Your task to perform on an android device: Open the map Image 0: 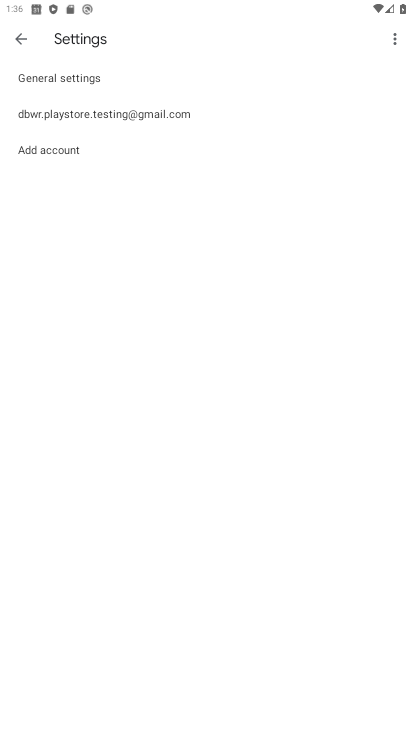
Step 0: click (24, 34)
Your task to perform on an android device: Open the map Image 1: 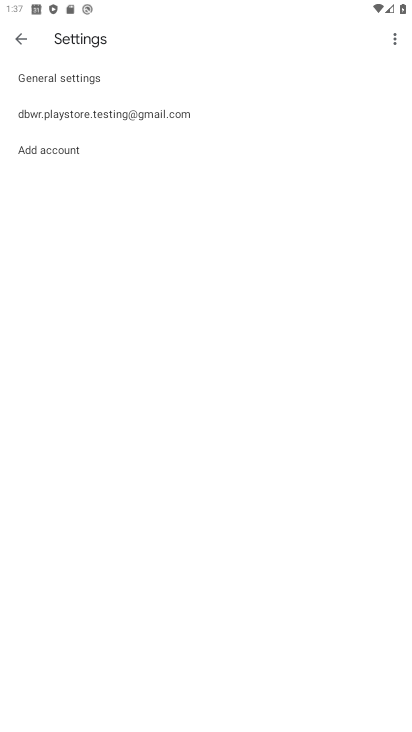
Step 1: click (12, 37)
Your task to perform on an android device: Open the map Image 2: 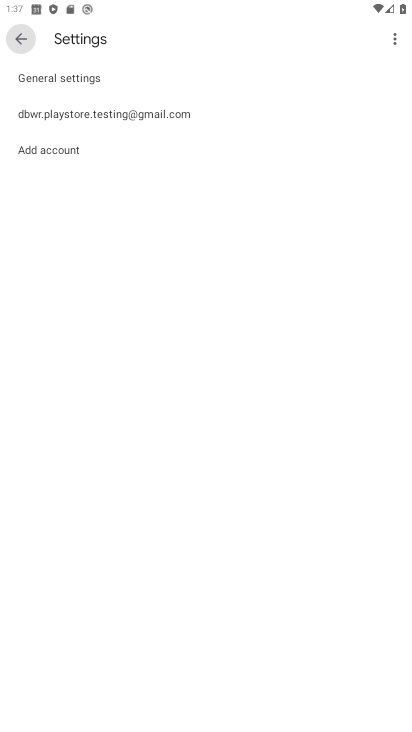
Step 2: click (12, 37)
Your task to perform on an android device: Open the map Image 3: 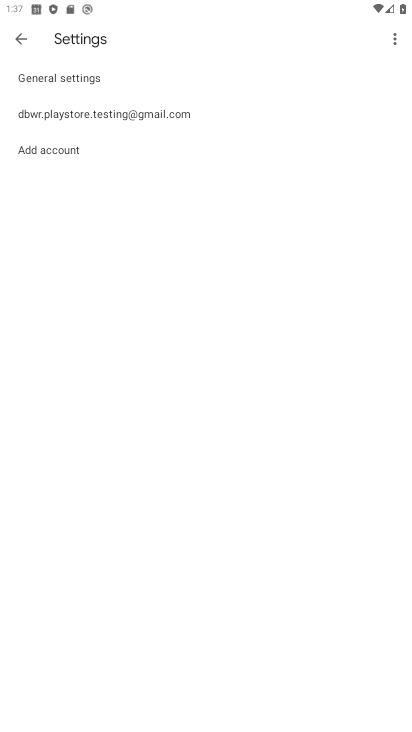
Step 3: click (13, 36)
Your task to perform on an android device: Open the map Image 4: 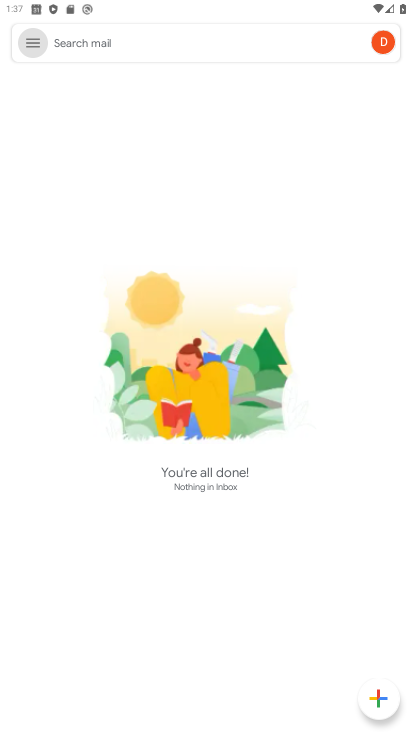
Step 4: click (17, 41)
Your task to perform on an android device: Open the map Image 5: 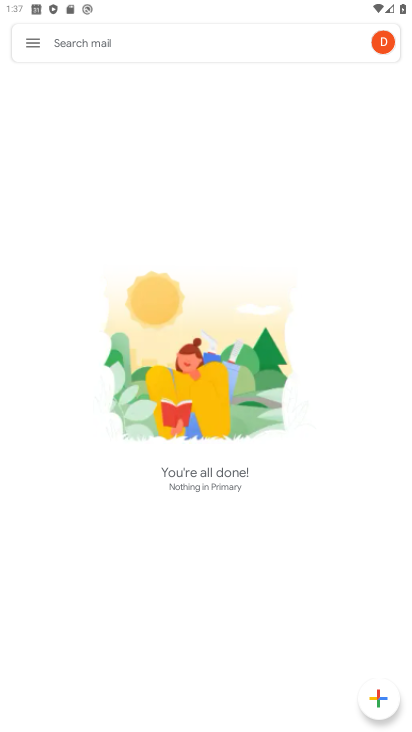
Step 5: press back button
Your task to perform on an android device: Open the map Image 6: 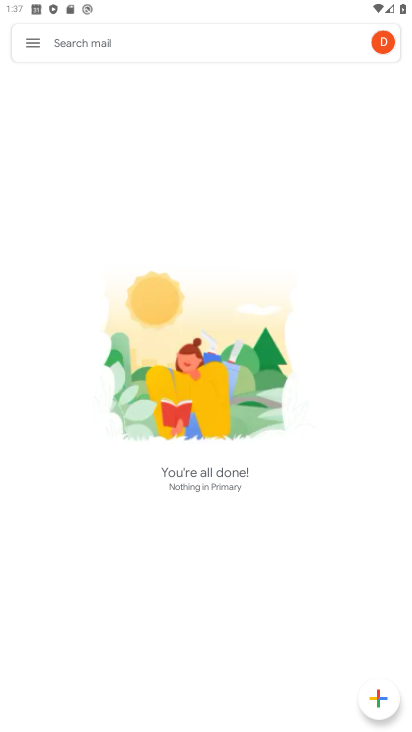
Step 6: press back button
Your task to perform on an android device: Open the map Image 7: 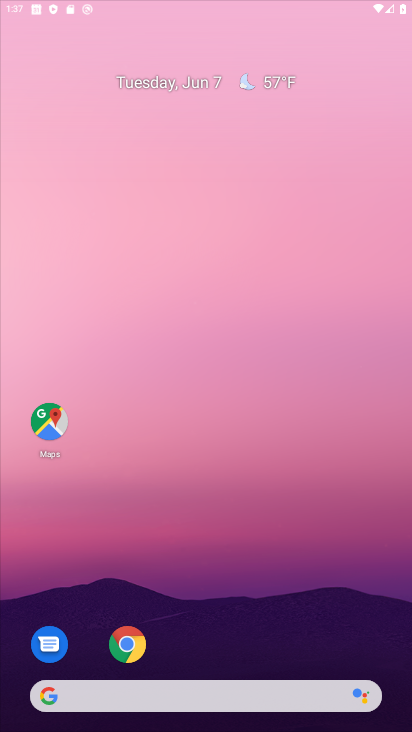
Step 7: press back button
Your task to perform on an android device: Open the map Image 8: 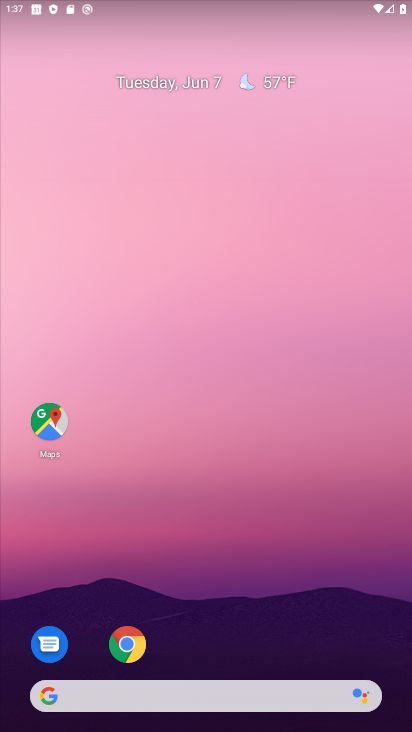
Step 8: drag from (199, 615) to (112, 27)
Your task to perform on an android device: Open the map Image 9: 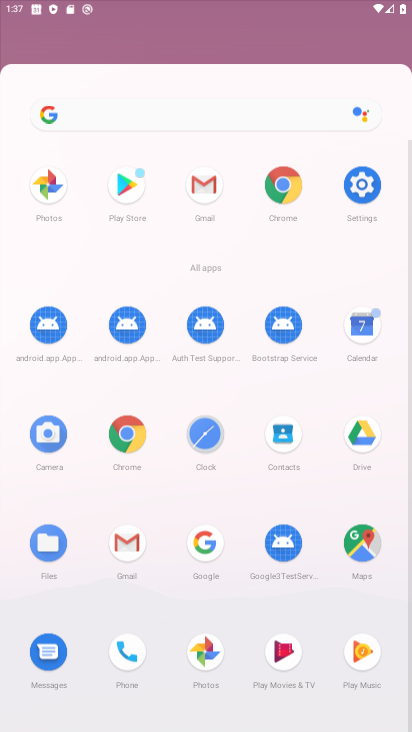
Step 9: drag from (151, 345) to (95, 39)
Your task to perform on an android device: Open the map Image 10: 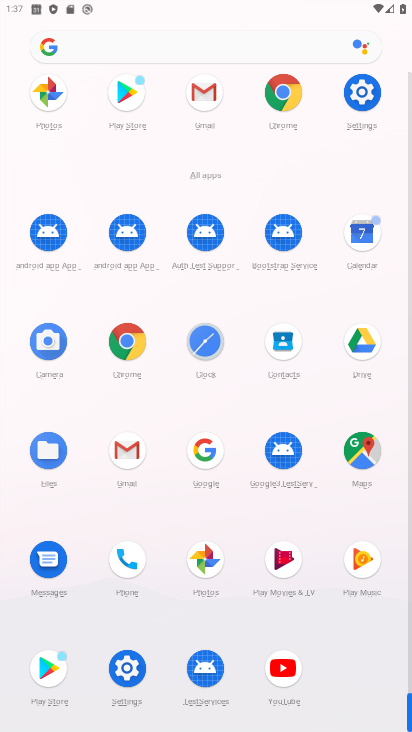
Step 10: click (359, 457)
Your task to perform on an android device: Open the map Image 11: 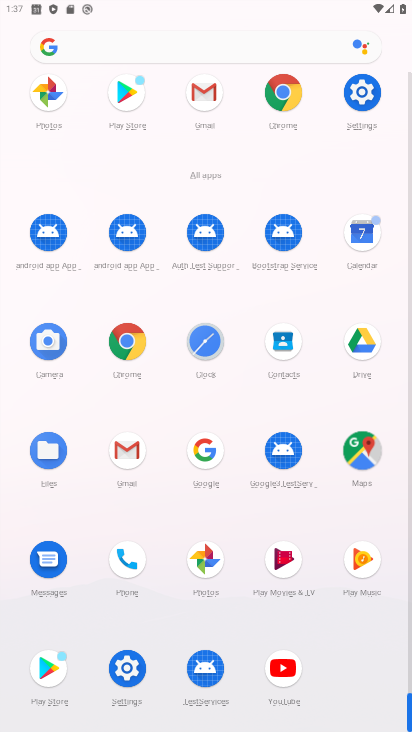
Step 11: click (361, 454)
Your task to perform on an android device: Open the map Image 12: 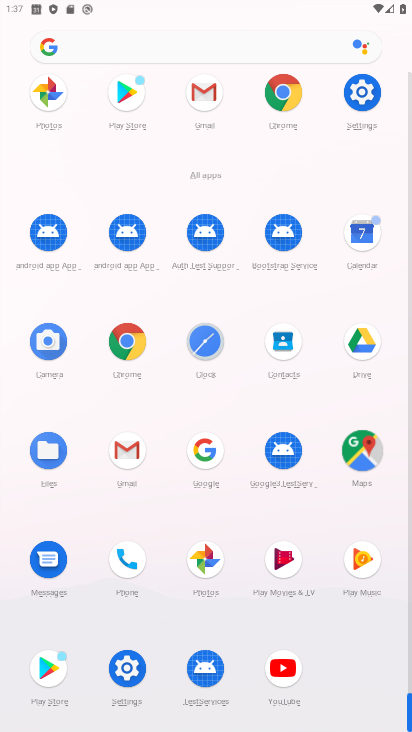
Step 12: click (361, 454)
Your task to perform on an android device: Open the map Image 13: 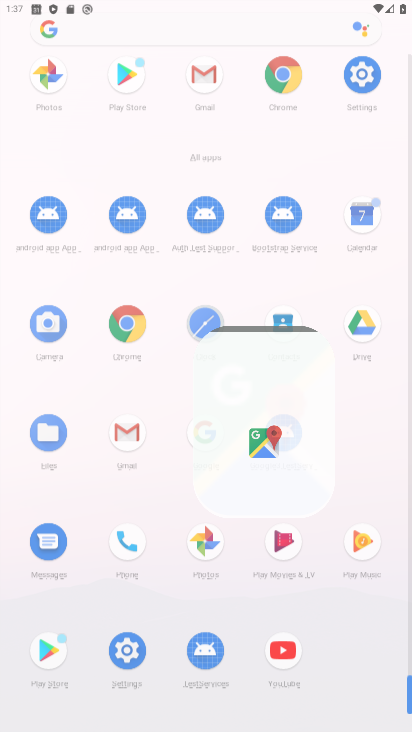
Step 13: click (361, 454)
Your task to perform on an android device: Open the map Image 14: 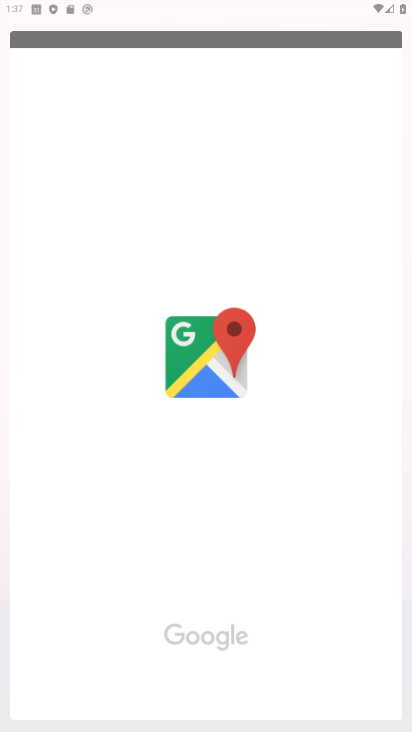
Step 14: click (360, 453)
Your task to perform on an android device: Open the map Image 15: 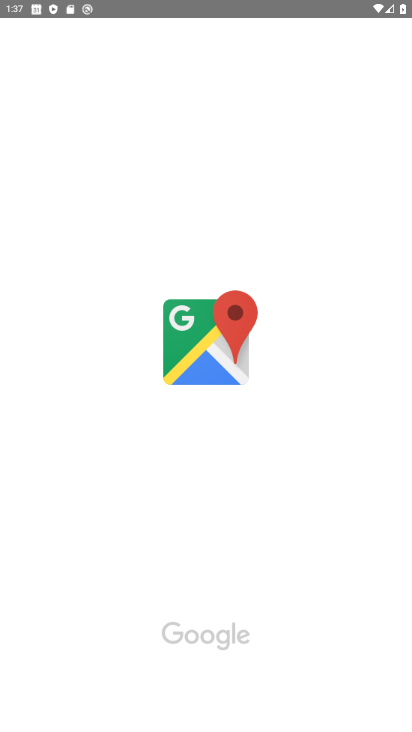
Step 15: click (359, 452)
Your task to perform on an android device: Open the map Image 16: 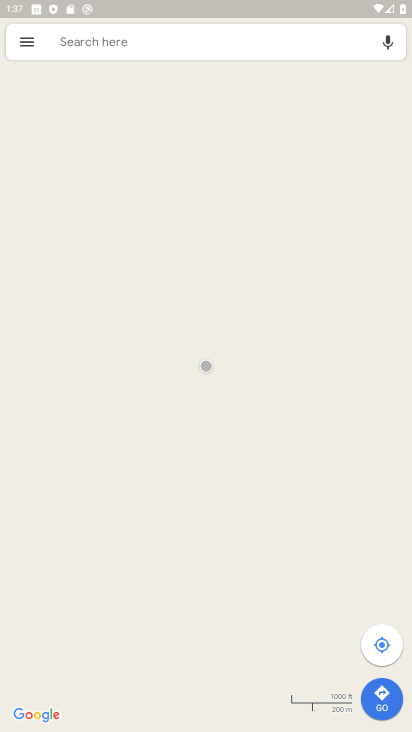
Step 16: task complete